Your task to perform on an android device: Search for jbl flip 4 on ebay.com, select the first entry, and add it to the cart. Image 0: 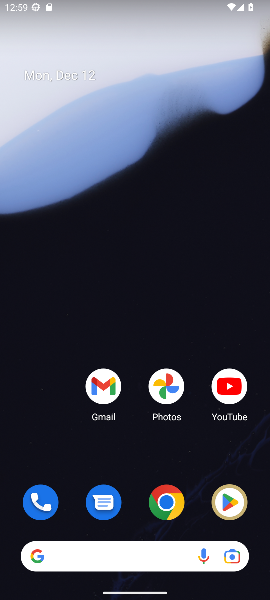
Step 0: click (167, 515)
Your task to perform on an android device: Search for jbl flip 4 on ebay.com, select the first entry, and add it to the cart. Image 1: 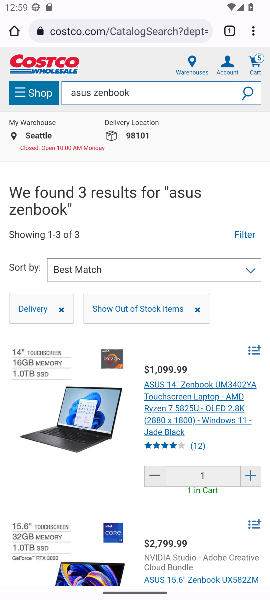
Step 1: task complete